Your task to perform on an android device: empty trash in the gmail app Image 0: 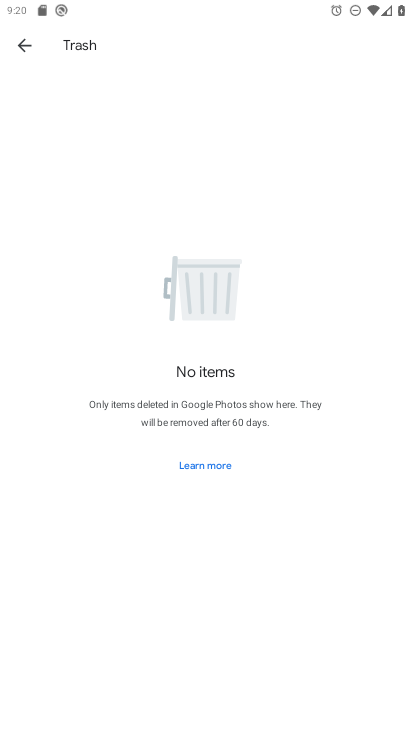
Step 0: press home button
Your task to perform on an android device: empty trash in the gmail app Image 1: 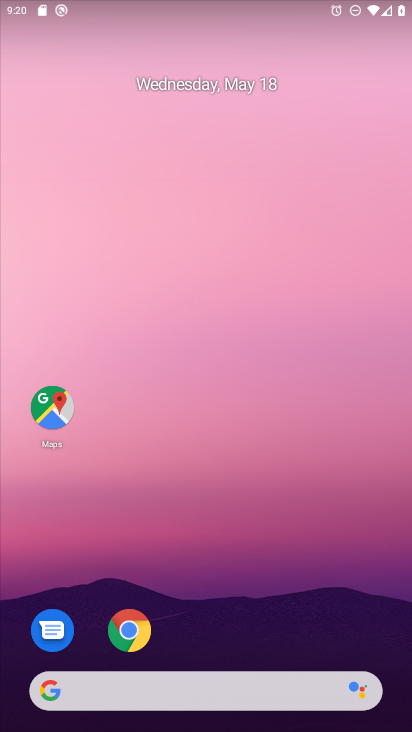
Step 1: drag from (222, 661) to (150, 37)
Your task to perform on an android device: empty trash in the gmail app Image 2: 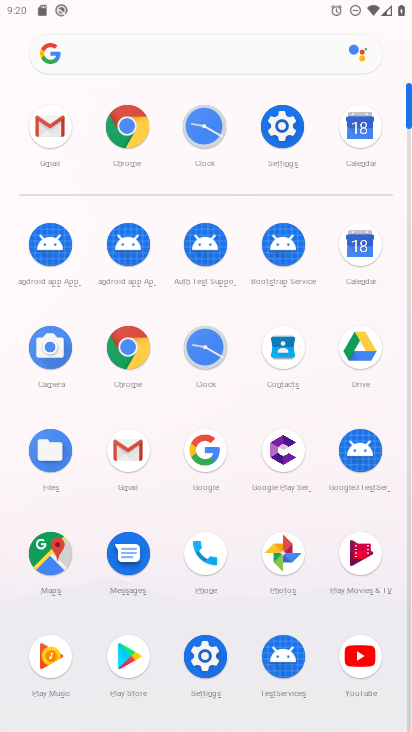
Step 2: click (128, 457)
Your task to perform on an android device: empty trash in the gmail app Image 3: 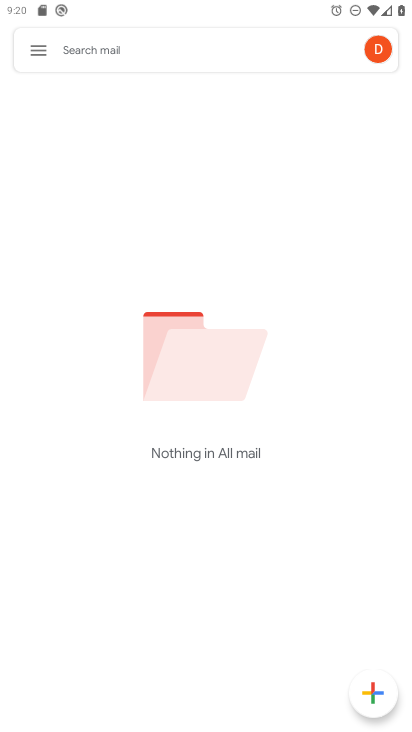
Step 3: click (39, 38)
Your task to perform on an android device: empty trash in the gmail app Image 4: 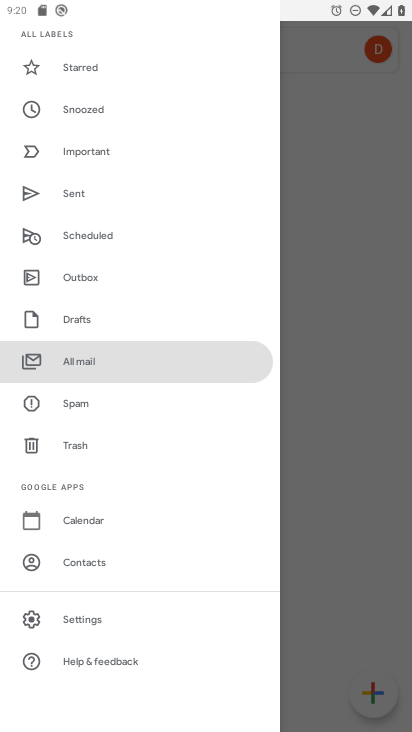
Step 4: click (105, 431)
Your task to perform on an android device: empty trash in the gmail app Image 5: 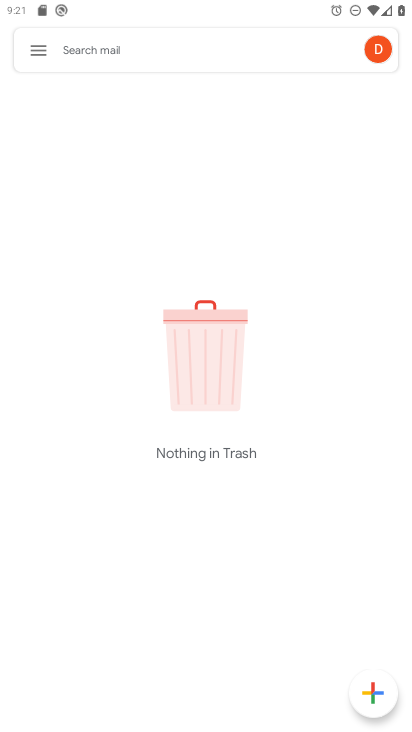
Step 5: task complete